Your task to perform on an android device: Open Youtube and go to the subscriptions tab Image 0: 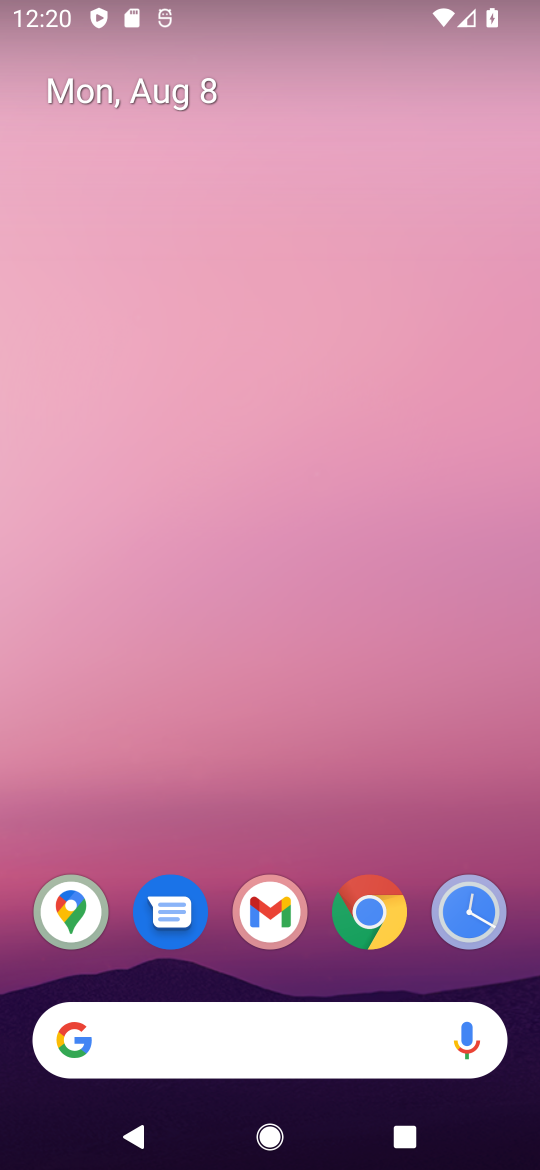
Step 0: drag from (215, 987) to (330, 68)
Your task to perform on an android device: Open Youtube and go to the subscriptions tab Image 1: 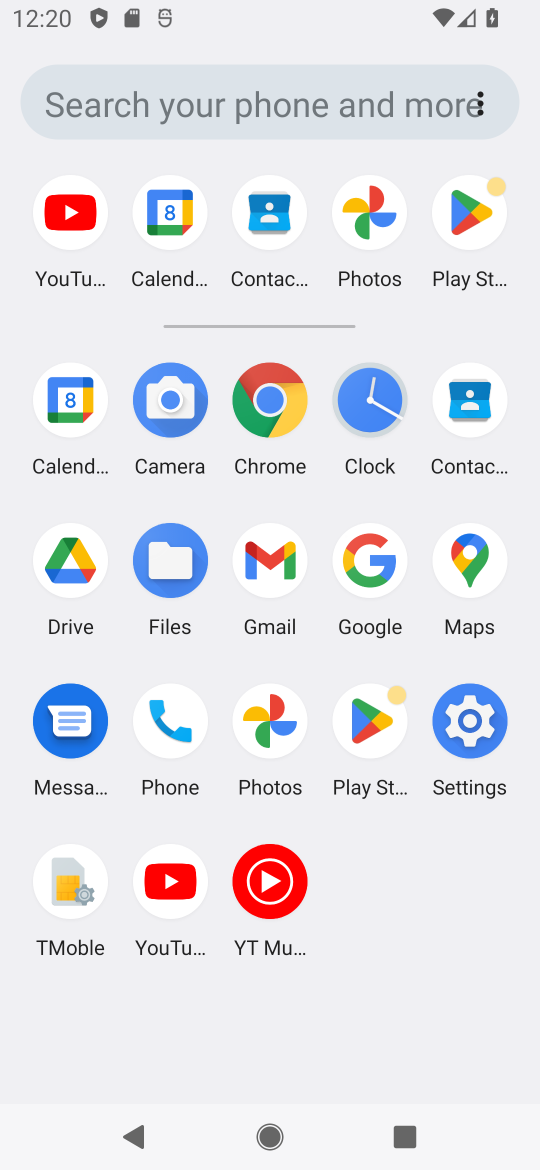
Step 1: click (170, 876)
Your task to perform on an android device: Open Youtube and go to the subscriptions tab Image 2: 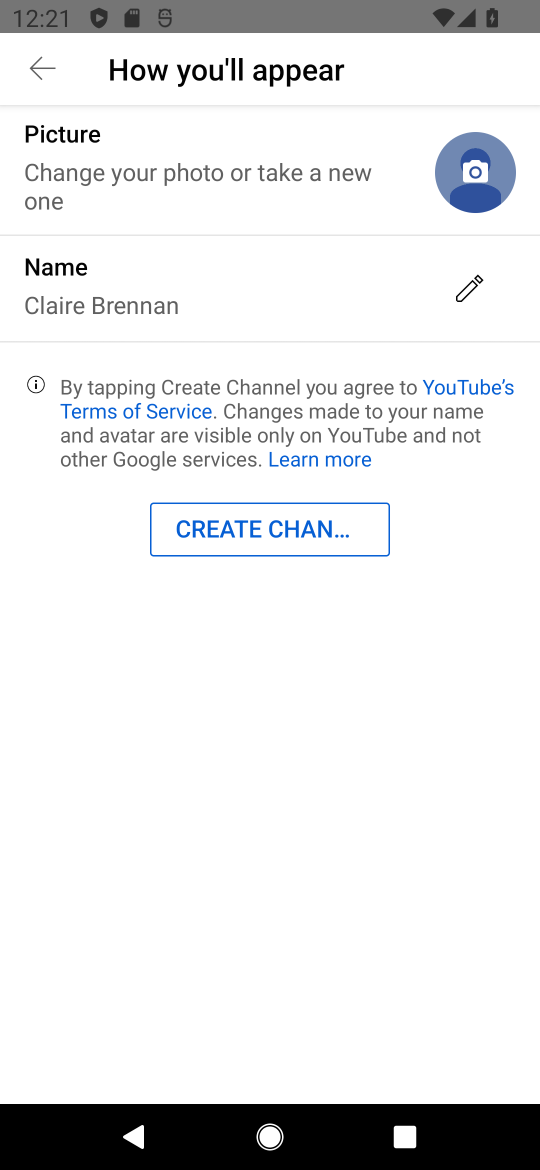
Step 2: click (15, 43)
Your task to perform on an android device: Open Youtube and go to the subscriptions tab Image 3: 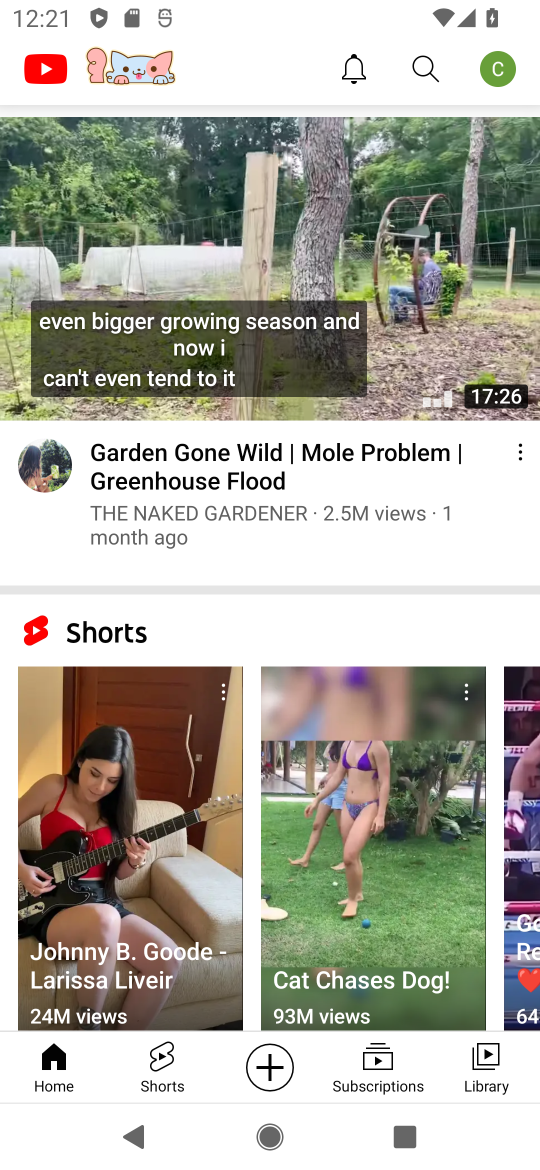
Step 3: click (371, 1079)
Your task to perform on an android device: Open Youtube and go to the subscriptions tab Image 4: 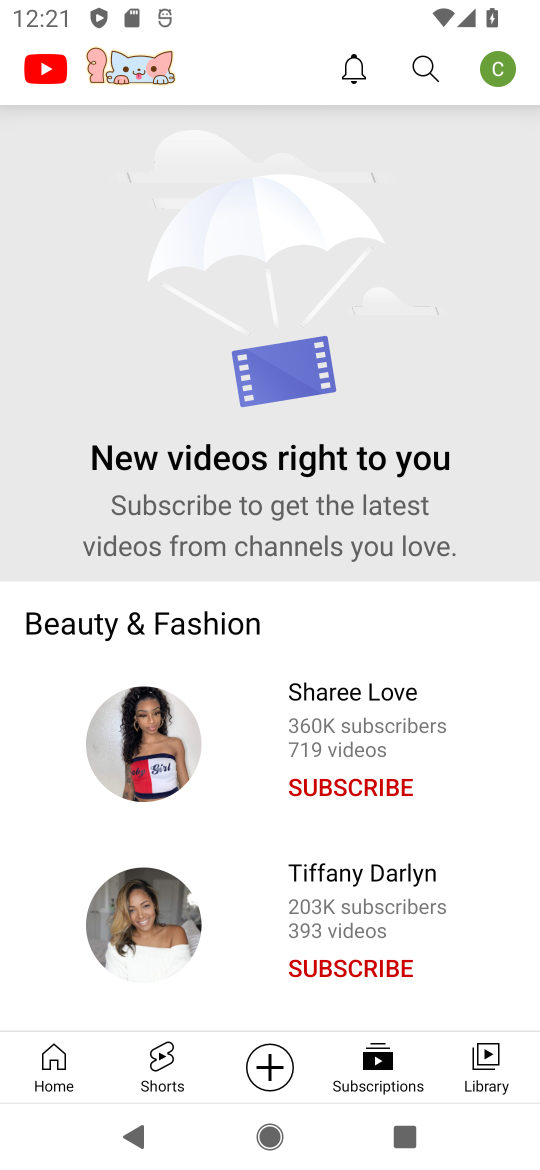
Step 4: task complete